Your task to perform on an android device: Go to accessibility settings Image 0: 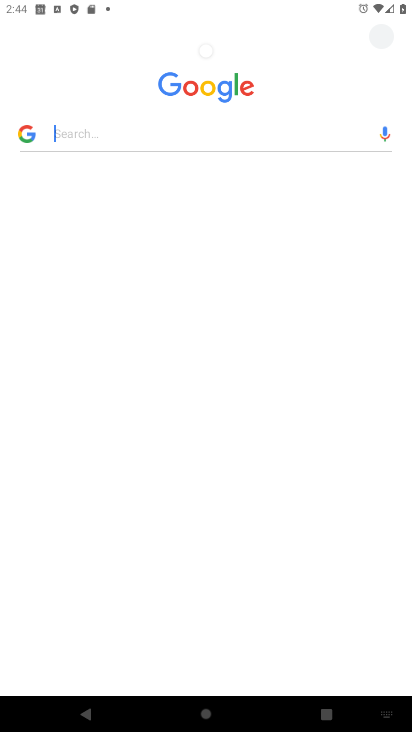
Step 0: press back button
Your task to perform on an android device: Go to accessibility settings Image 1: 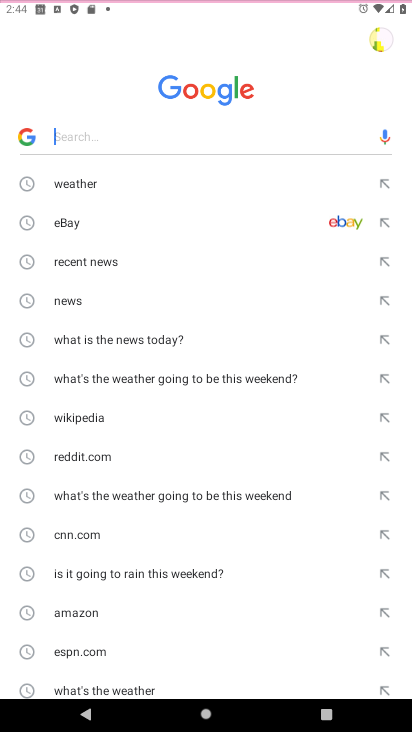
Step 1: press back button
Your task to perform on an android device: Go to accessibility settings Image 2: 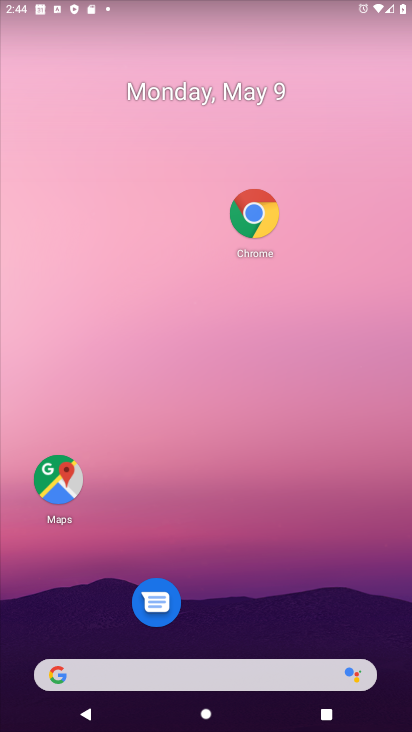
Step 2: drag from (249, 563) to (257, 115)
Your task to perform on an android device: Go to accessibility settings Image 3: 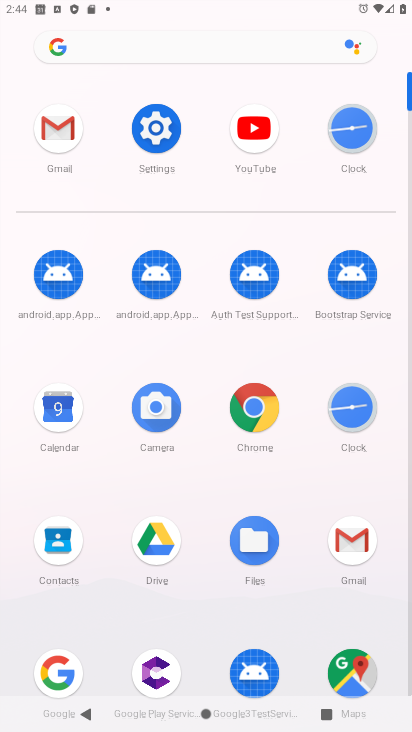
Step 3: click (153, 144)
Your task to perform on an android device: Go to accessibility settings Image 4: 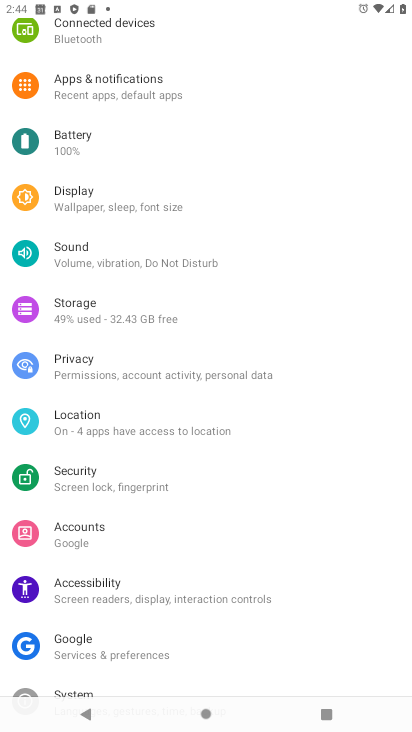
Step 4: drag from (147, 573) to (158, 488)
Your task to perform on an android device: Go to accessibility settings Image 5: 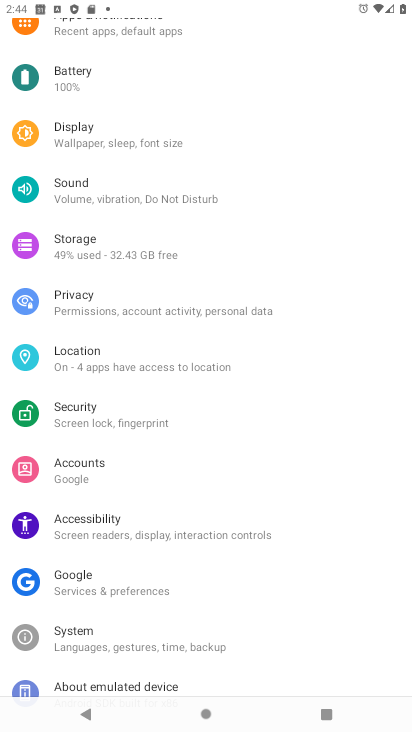
Step 5: click (157, 503)
Your task to perform on an android device: Go to accessibility settings Image 6: 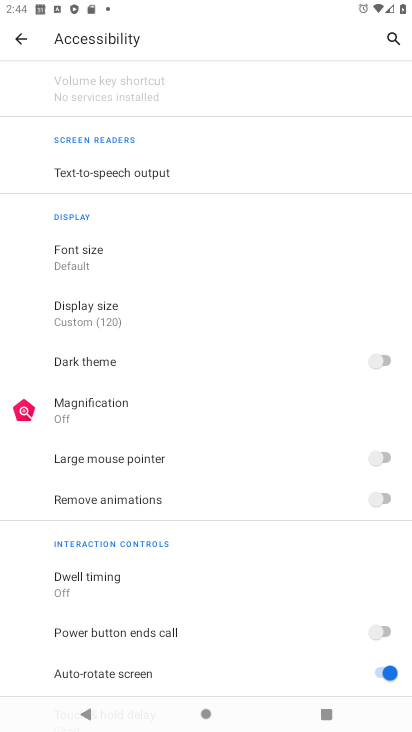
Step 6: task complete